Your task to perform on an android device: turn on improve location accuracy Image 0: 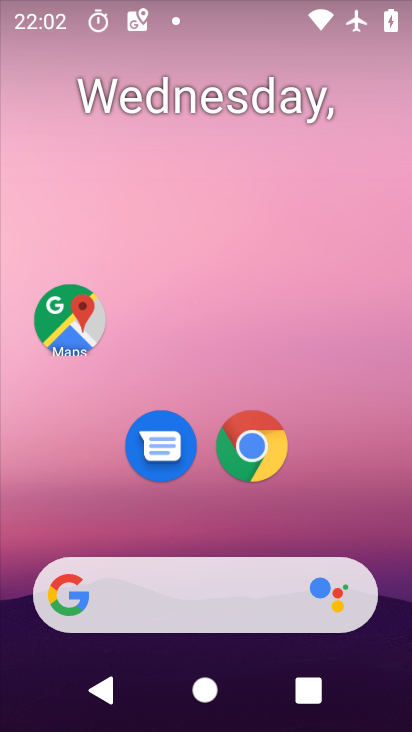
Step 0: press home button
Your task to perform on an android device: turn on improve location accuracy Image 1: 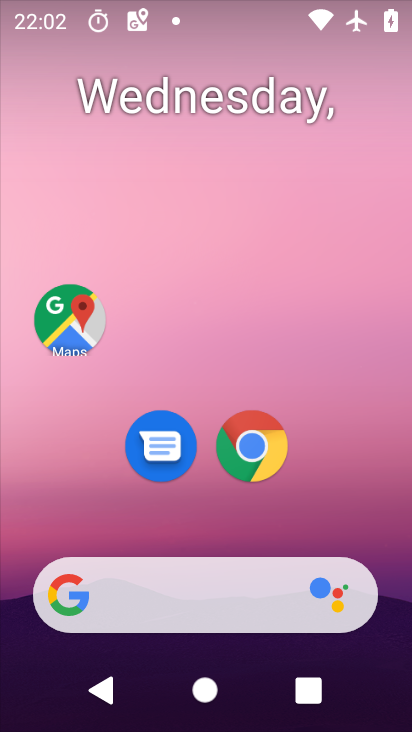
Step 1: drag from (216, 604) to (365, 130)
Your task to perform on an android device: turn on improve location accuracy Image 2: 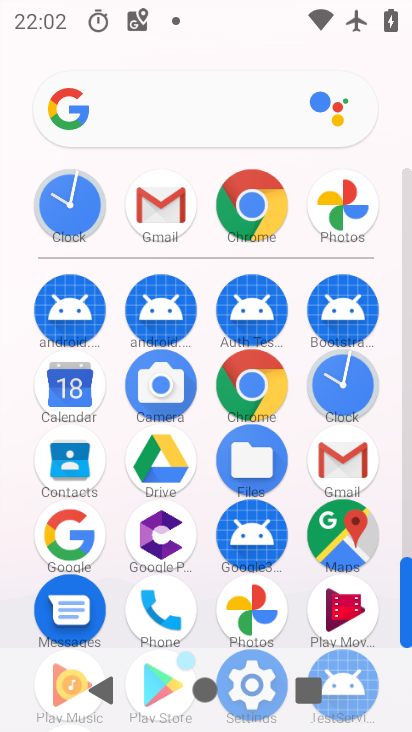
Step 2: drag from (213, 594) to (349, 179)
Your task to perform on an android device: turn on improve location accuracy Image 3: 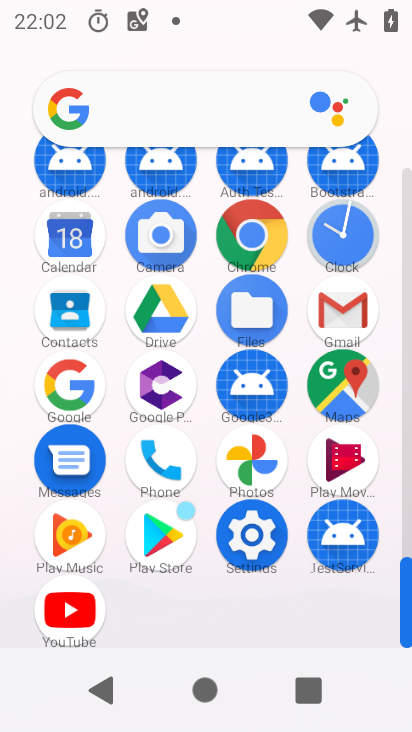
Step 3: click (255, 523)
Your task to perform on an android device: turn on improve location accuracy Image 4: 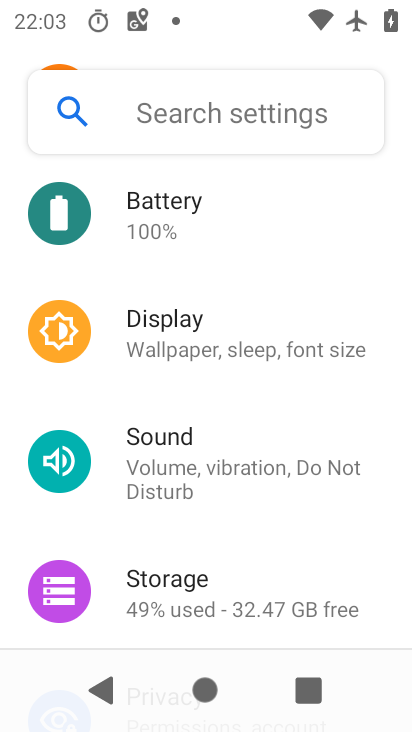
Step 4: drag from (201, 579) to (363, 130)
Your task to perform on an android device: turn on improve location accuracy Image 5: 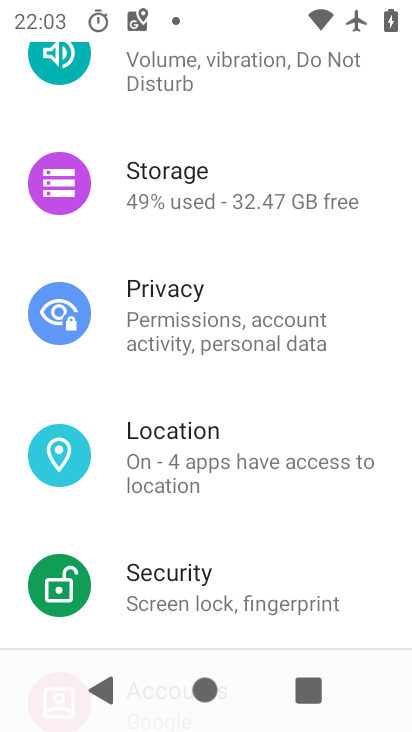
Step 5: click (211, 431)
Your task to perform on an android device: turn on improve location accuracy Image 6: 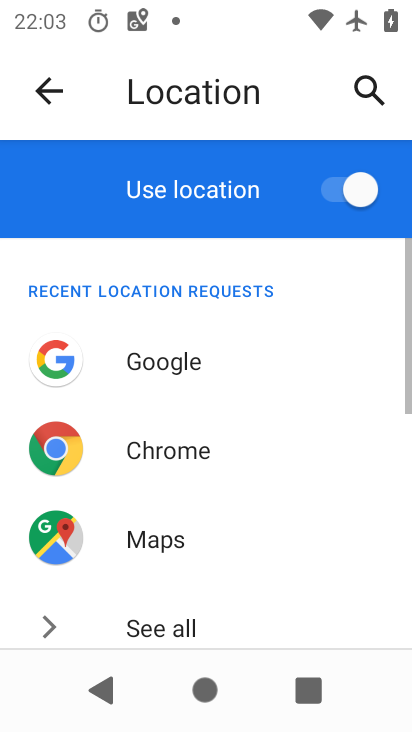
Step 6: drag from (216, 577) to (308, 114)
Your task to perform on an android device: turn on improve location accuracy Image 7: 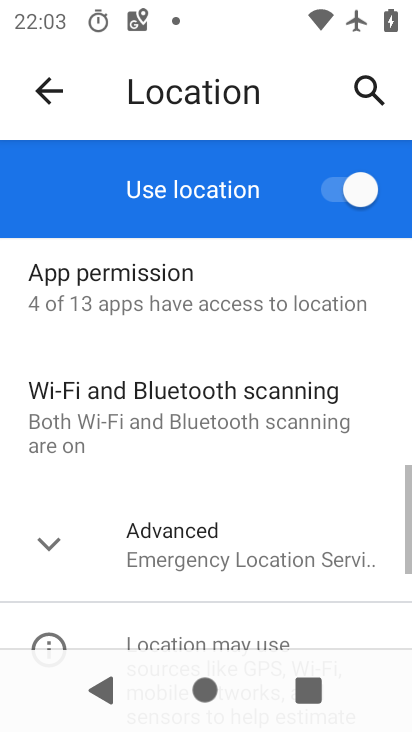
Step 7: click (163, 540)
Your task to perform on an android device: turn on improve location accuracy Image 8: 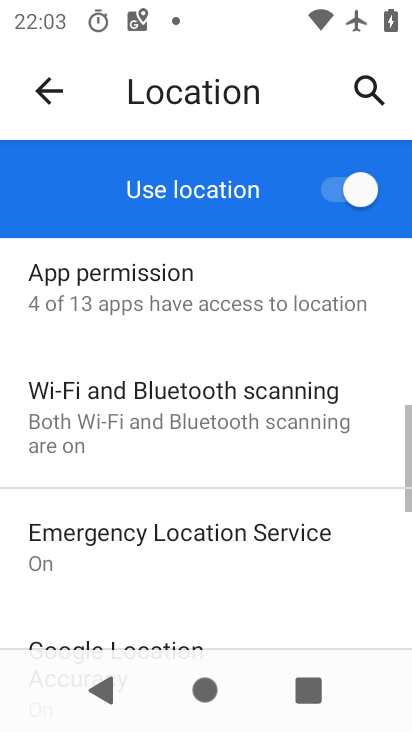
Step 8: drag from (220, 551) to (343, 187)
Your task to perform on an android device: turn on improve location accuracy Image 9: 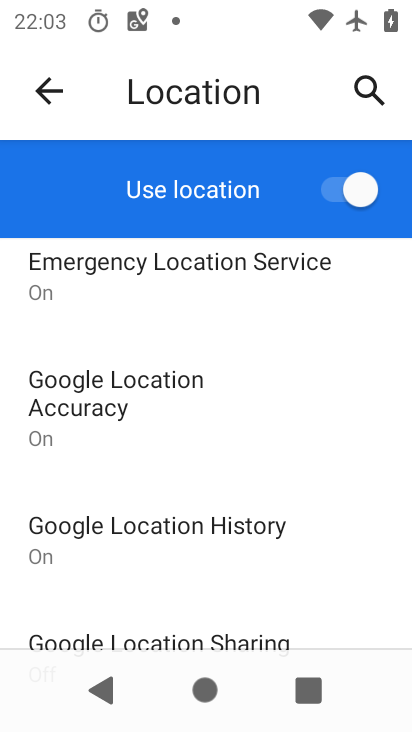
Step 9: click (128, 391)
Your task to perform on an android device: turn on improve location accuracy Image 10: 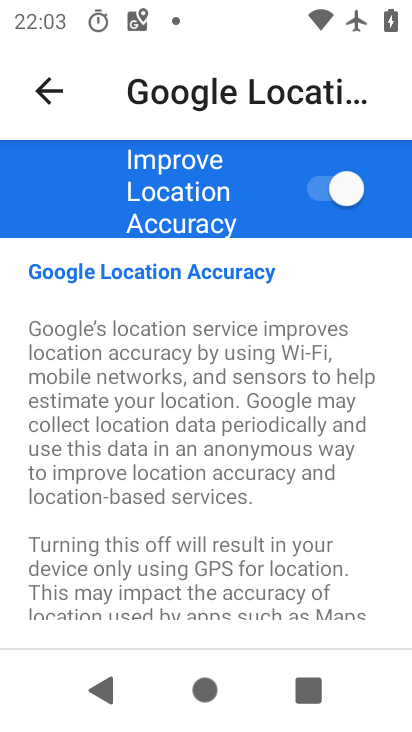
Step 10: task complete